Your task to perform on an android device: turn on improve location accuracy Image 0: 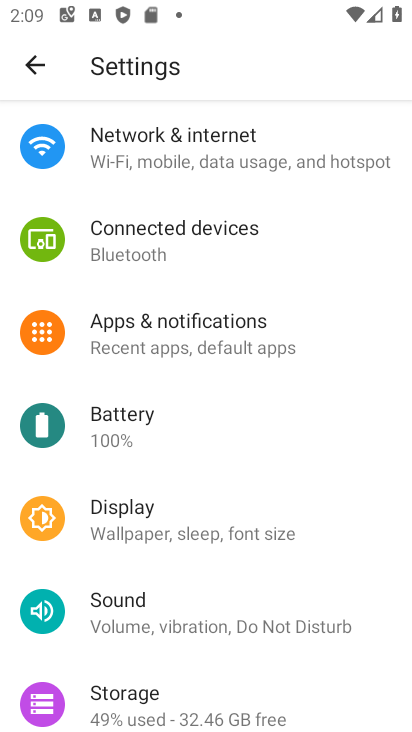
Step 0: drag from (170, 609) to (269, 124)
Your task to perform on an android device: turn on improve location accuracy Image 1: 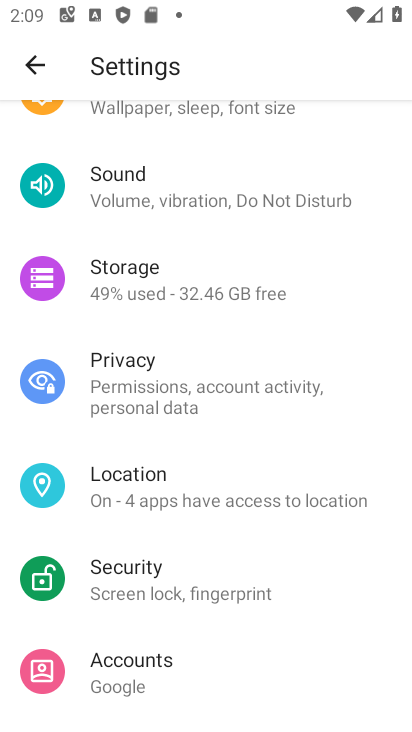
Step 1: click (194, 487)
Your task to perform on an android device: turn on improve location accuracy Image 2: 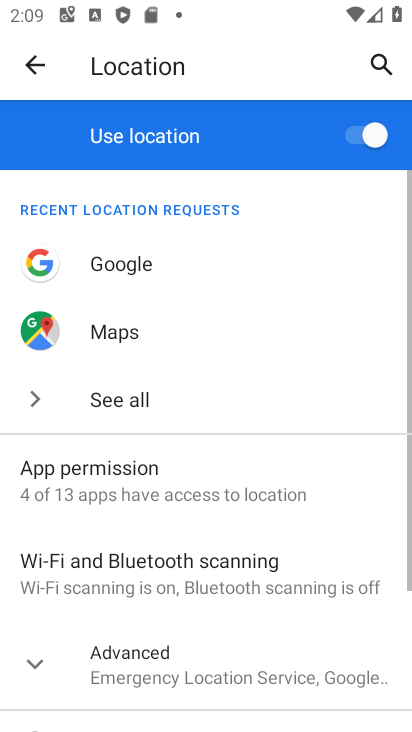
Step 2: click (165, 665)
Your task to perform on an android device: turn on improve location accuracy Image 3: 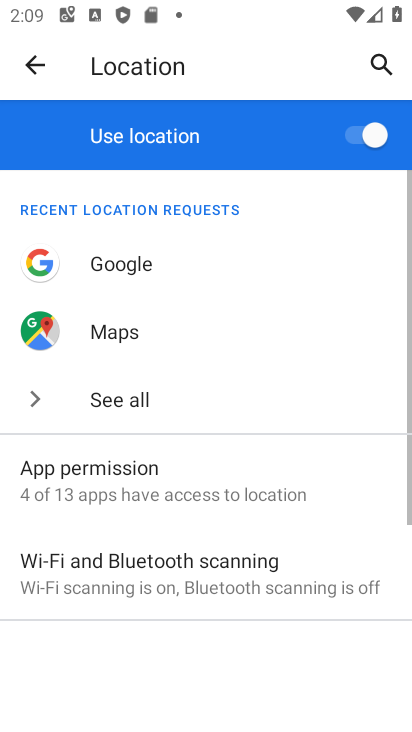
Step 3: drag from (199, 623) to (276, 29)
Your task to perform on an android device: turn on improve location accuracy Image 4: 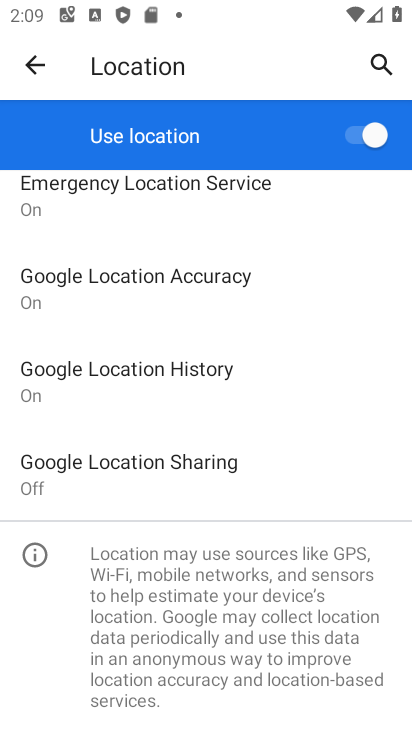
Step 4: click (197, 301)
Your task to perform on an android device: turn on improve location accuracy Image 5: 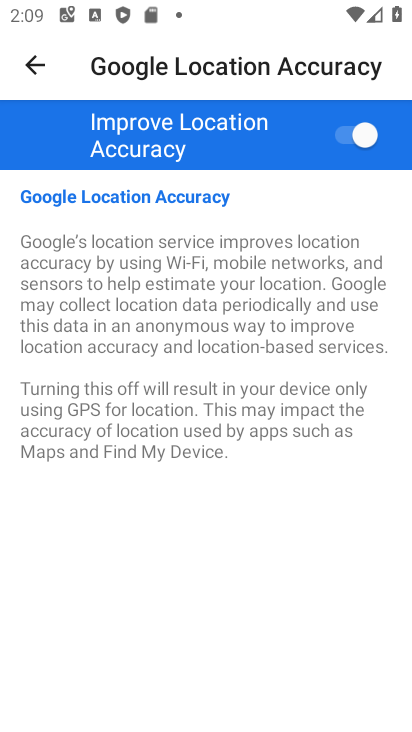
Step 5: task complete